Your task to perform on an android device: Open Google Chrome Image 0: 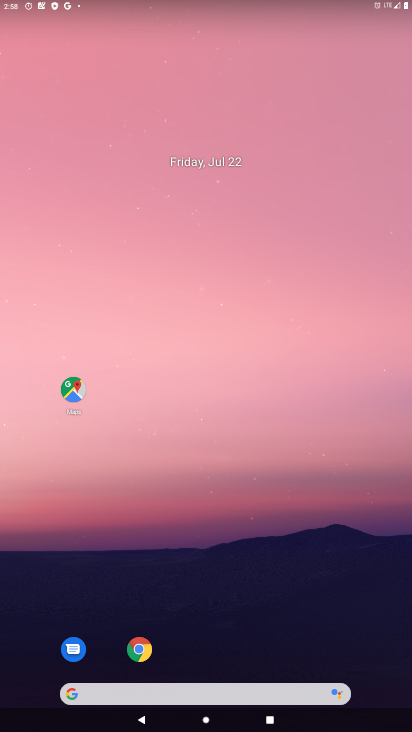
Step 0: drag from (275, 612) to (186, 4)
Your task to perform on an android device: Open Google Chrome Image 1: 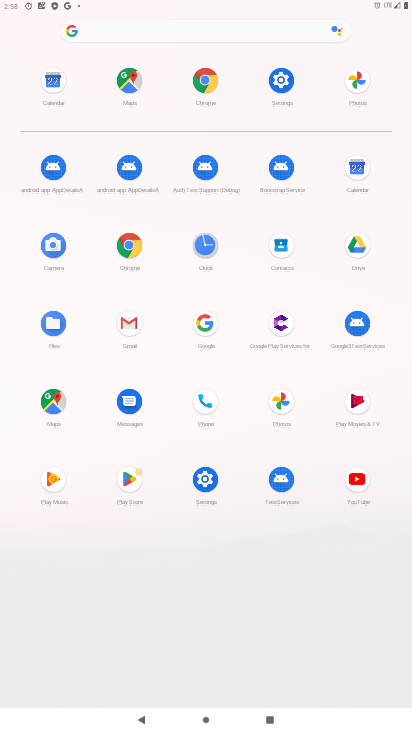
Step 1: click (205, 76)
Your task to perform on an android device: Open Google Chrome Image 2: 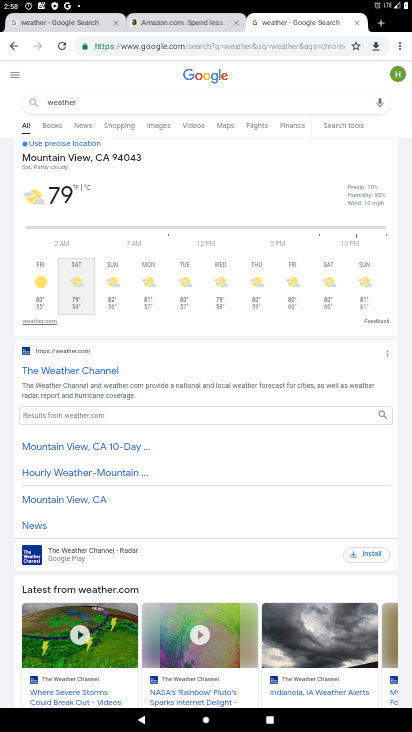
Step 2: task complete